Your task to perform on an android device: toggle javascript in the chrome app Image 0: 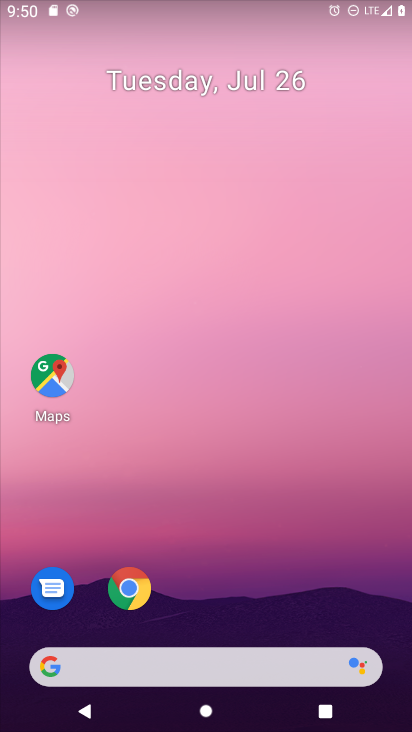
Step 0: drag from (194, 322) to (271, 0)
Your task to perform on an android device: toggle javascript in the chrome app Image 1: 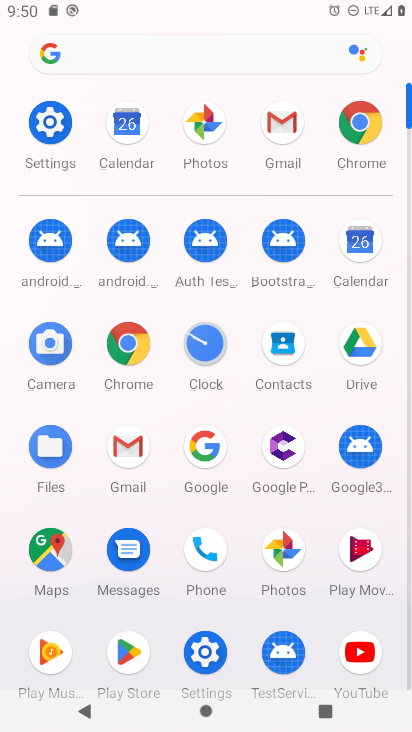
Step 1: click (360, 127)
Your task to perform on an android device: toggle javascript in the chrome app Image 2: 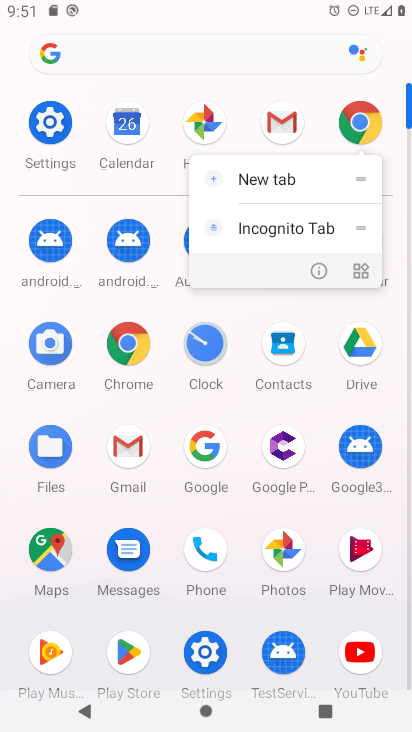
Step 2: click (362, 129)
Your task to perform on an android device: toggle javascript in the chrome app Image 3: 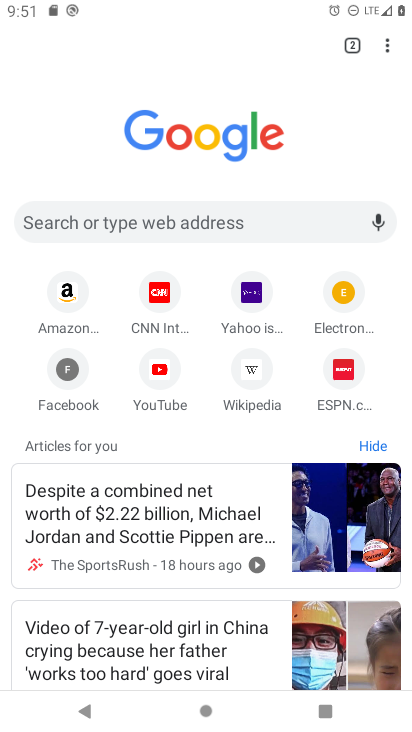
Step 3: click (386, 42)
Your task to perform on an android device: toggle javascript in the chrome app Image 4: 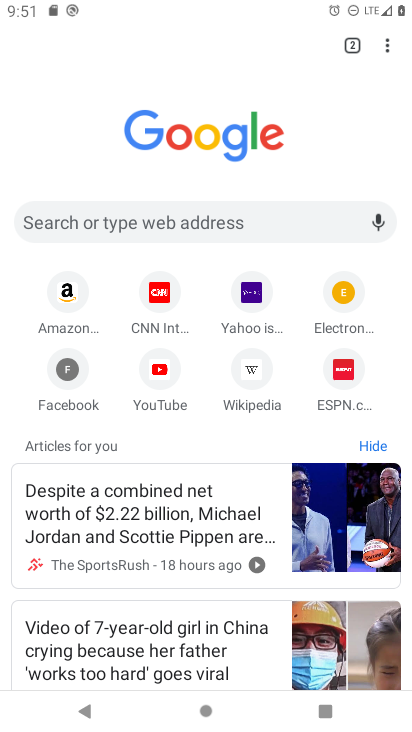
Step 4: click (386, 48)
Your task to perform on an android device: toggle javascript in the chrome app Image 5: 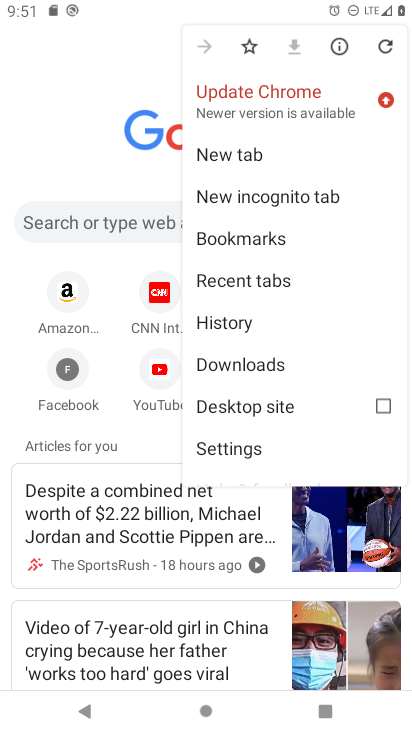
Step 5: click (246, 445)
Your task to perform on an android device: toggle javascript in the chrome app Image 6: 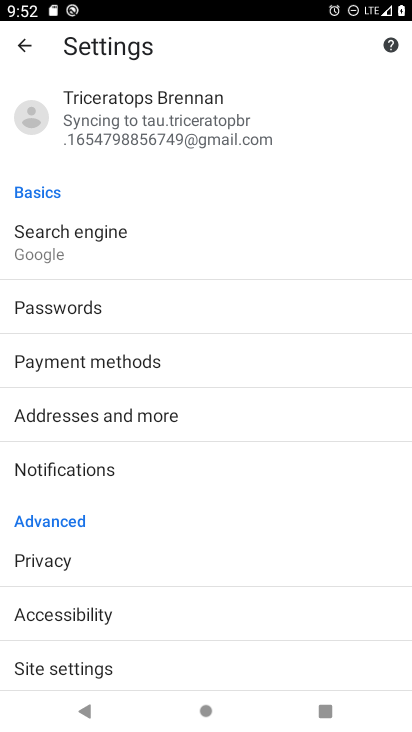
Step 6: drag from (172, 551) to (214, 329)
Your task to perform on an android device: toggle javascript in the chrome app Image 7: 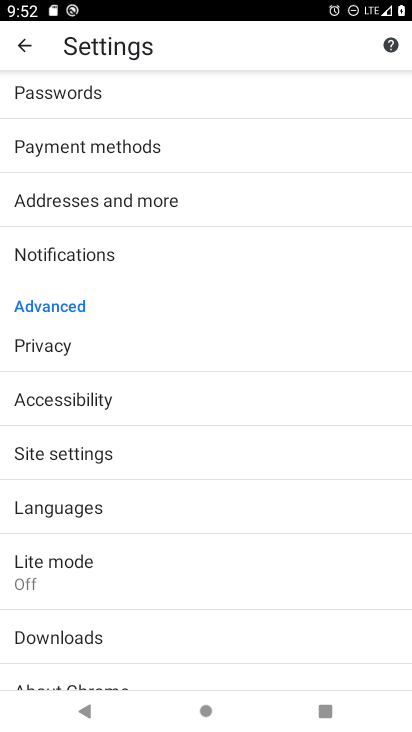
Step 7: click (127, 468)
Your task to perform on an android device: toggle javascript in the chrome app Image 8: 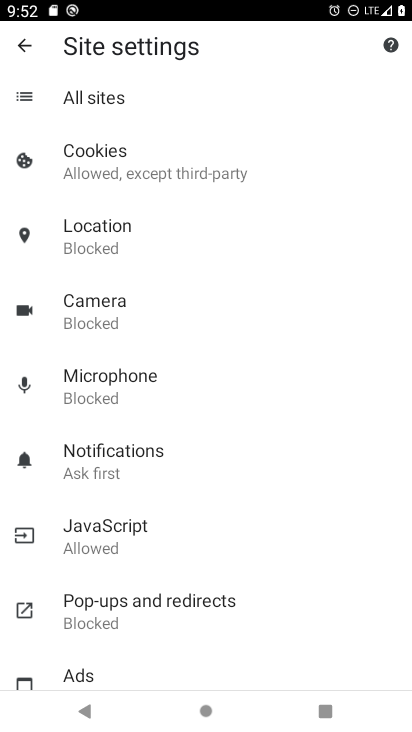
Step 8: click (119, 526)
Your task to perform on an android device: toggle javascript in the chrome app Image 9: 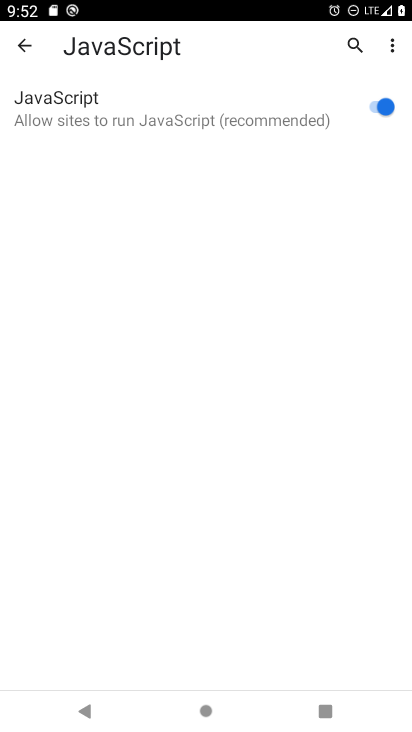
Step 9: click (372, 115)
Your task to perform on an android device: toggle javascript in the chrome app Image 10: 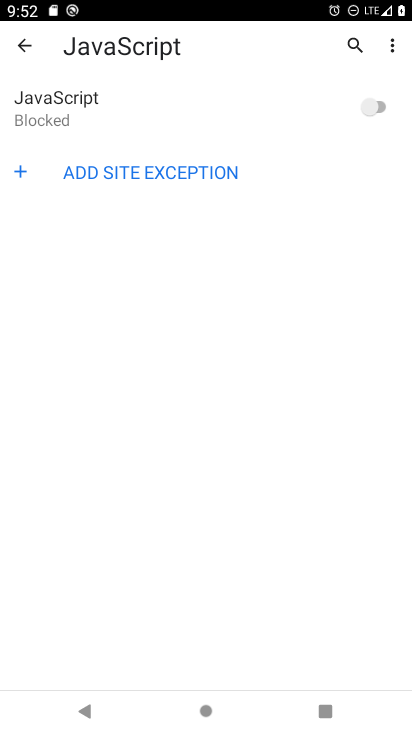
Step 10: task complete